Your task to perform on an android device: change keyboard looks Image 0: 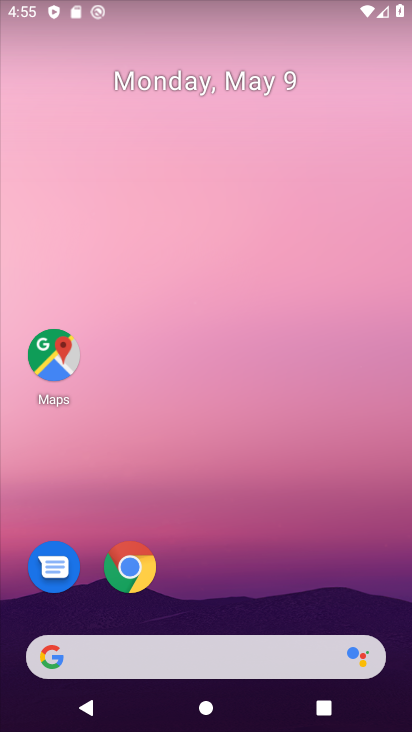
Step 0: drag from (238, 597) to (238, 1)
Your task to perform on an android device: change keyboard looks Image 1: 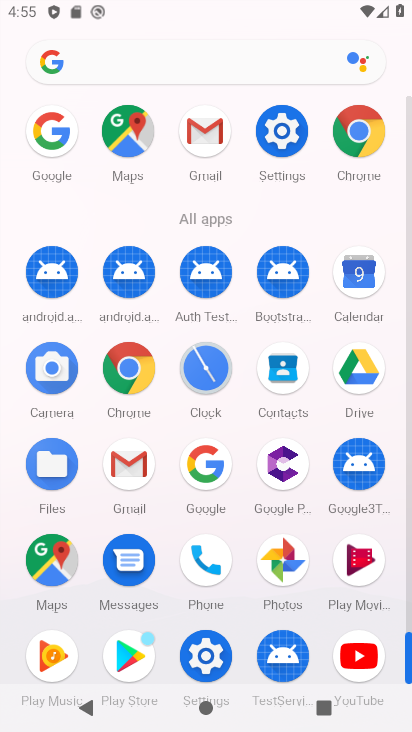
Step 1: click (361, 604)
Your task to perform on an android device: change keyboard looks Image 2: 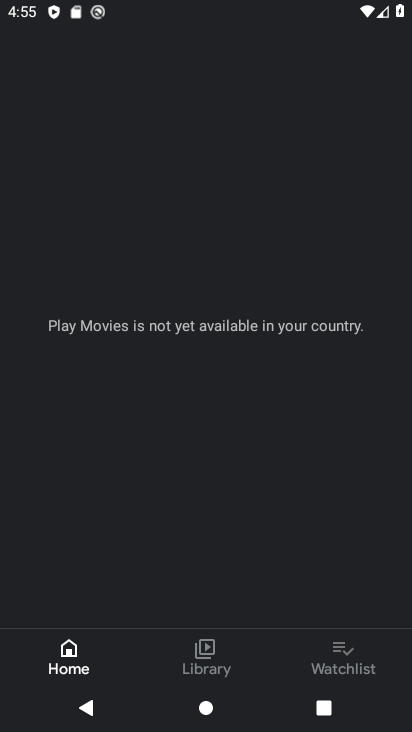
Step 2: click (333, 678)
Your task to perform on an android device: change keyboard looks Image 3: 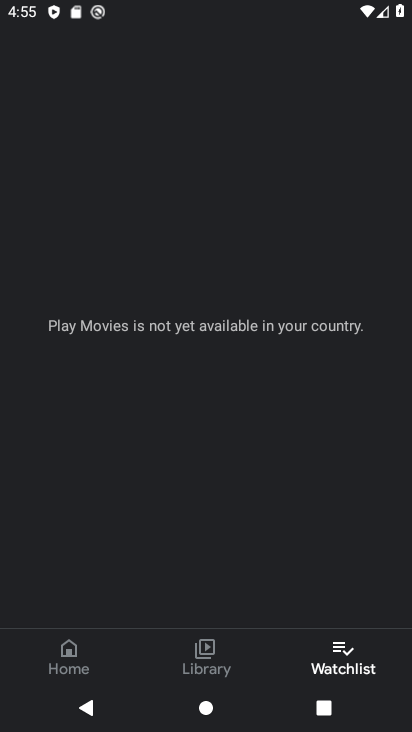
Step 3: task complete